Your task to perform on an android device: toggle pop-ups in chrome Image 0: 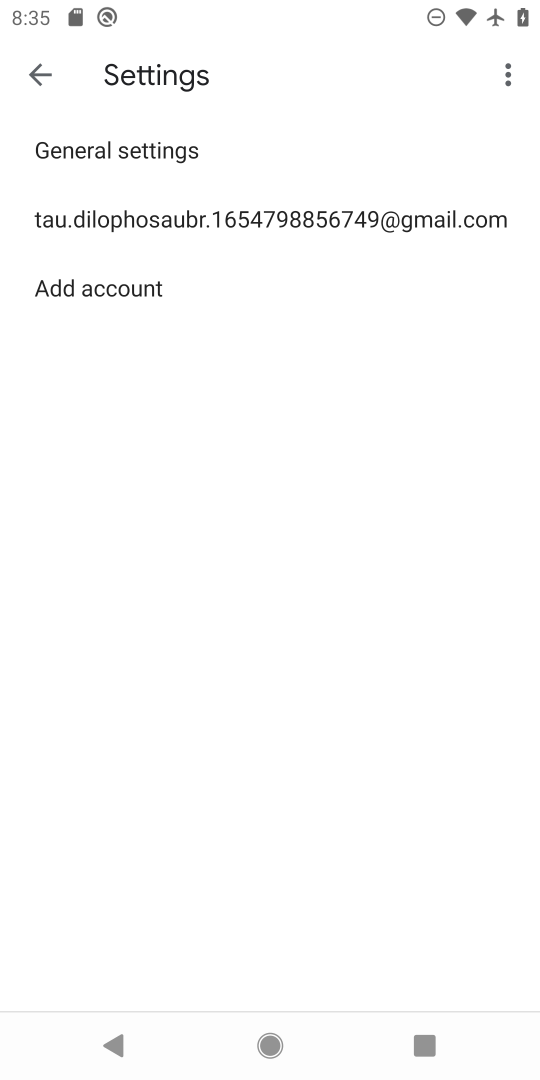
Step 0: press home button
Your task to perform on an android device: toggle pop-ups in chrome Image 1: 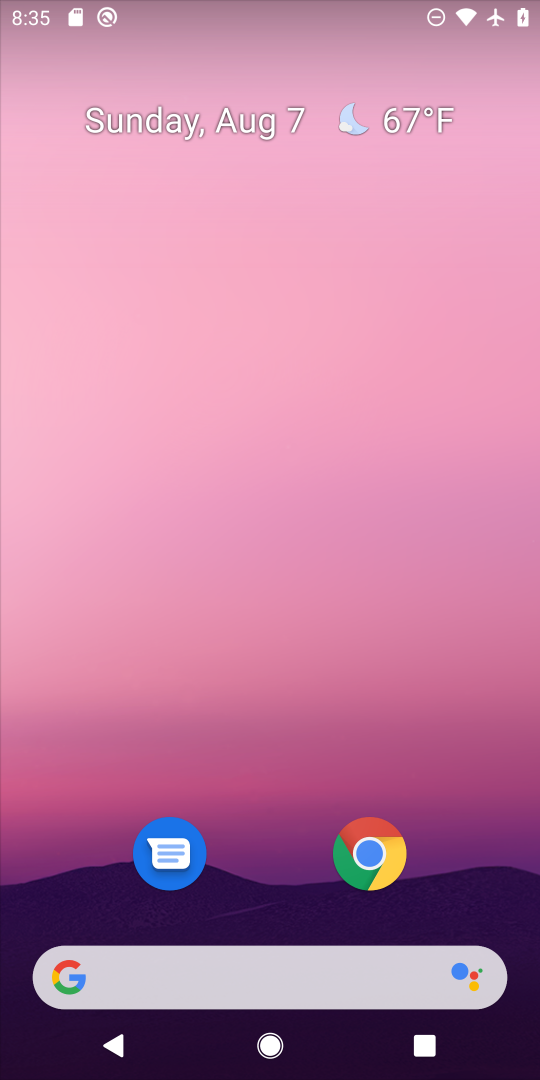
Step 1: drag from (294, 842) to (360, 162)
Your task to perform on an android device: toggle pop-ups in chrome Image 2: 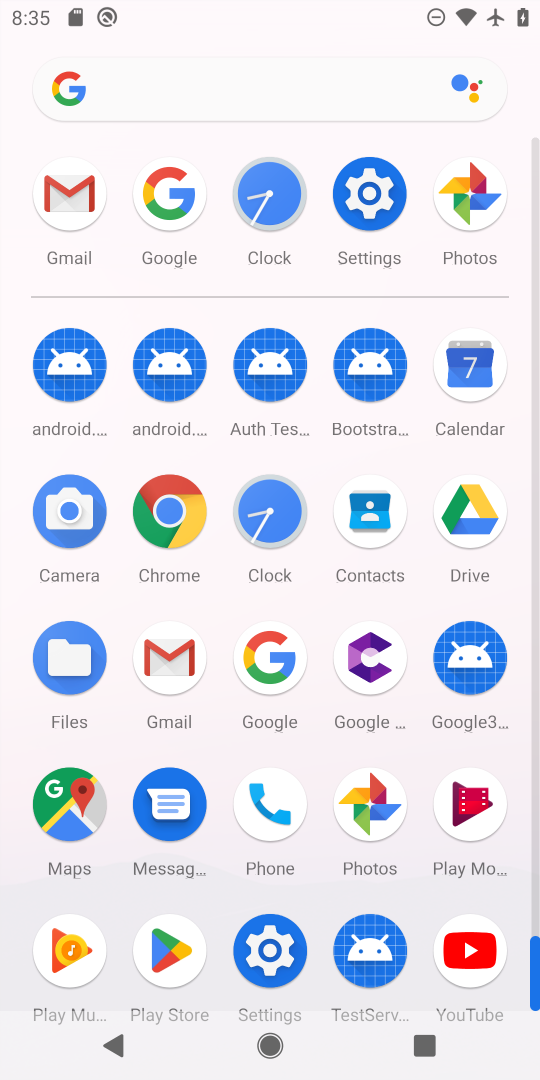
Step 2: click (175, 514)
Your task to perform on an android device: toggle pop-ups in chrome Image 3: 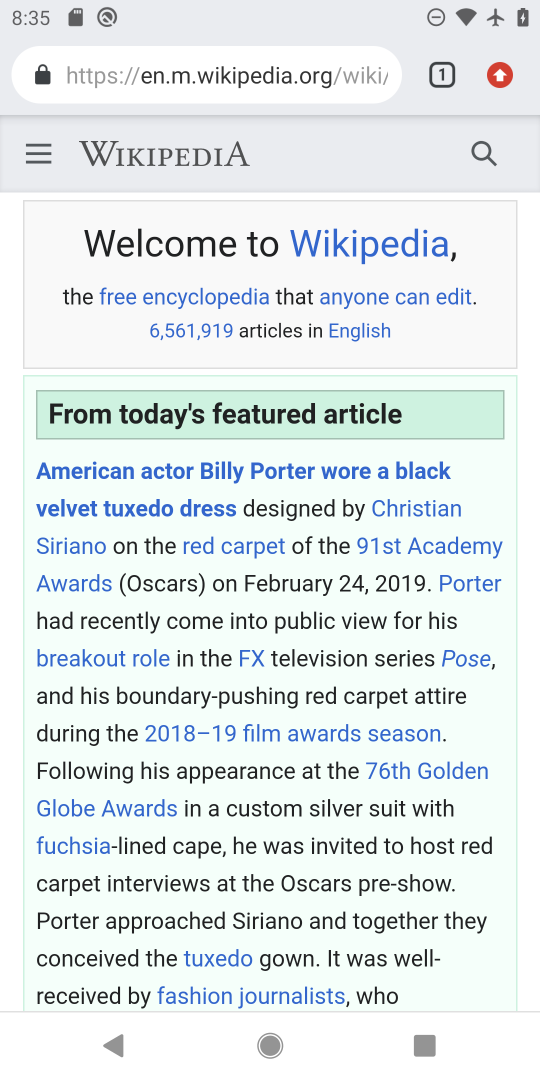
Step 3: click (497, 83)
Your task to perform on an android device: toggle pop-ups in chrome Image 4: 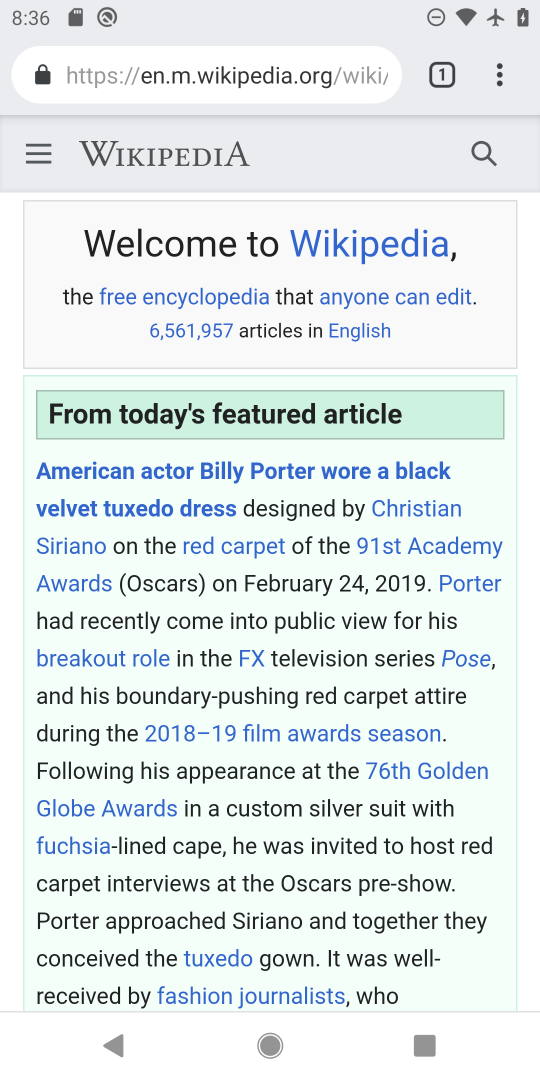
Step 4: click (503, 77)
Your task to perform on an android device: toggle pop-ups in chrome Image 5: 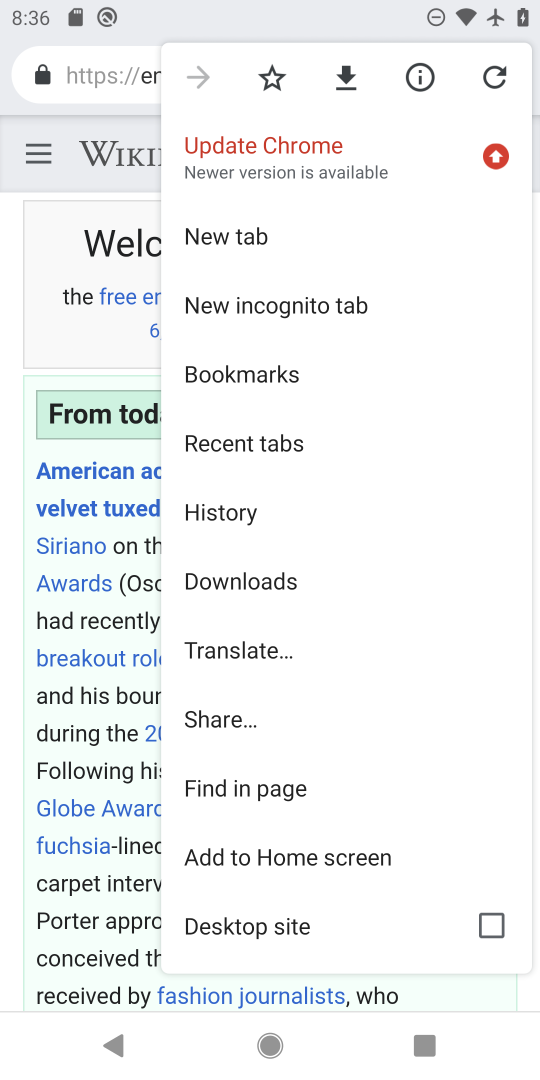
Step 5: drag from (302, 819) to (394, 175)
Your task to perform on an android device: toggle pop-ups in chrome Image 6: 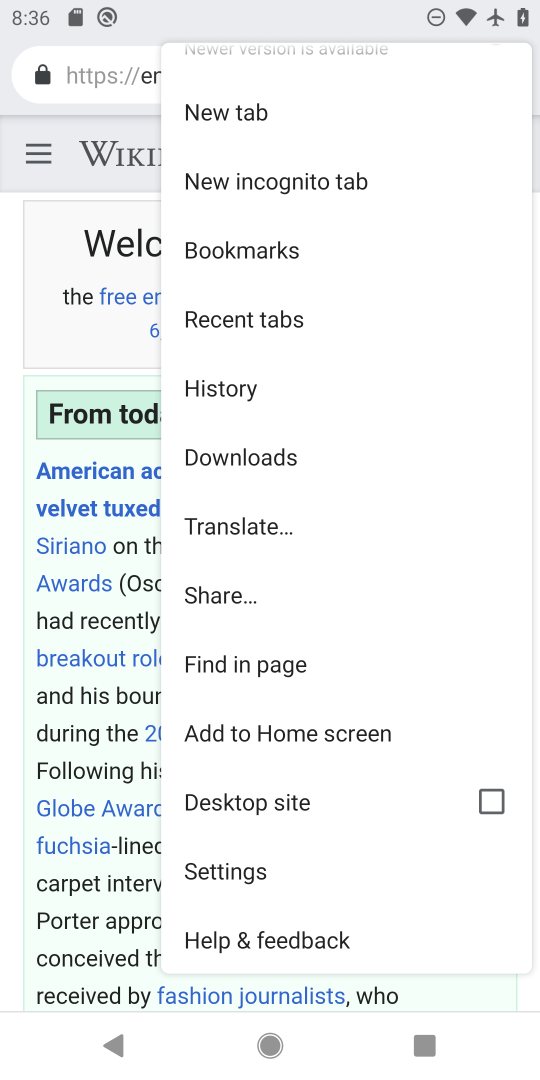
Step 6: click (255, 873)
Your task to perform on an android device: toggle pop-ups in chrome Image 7: 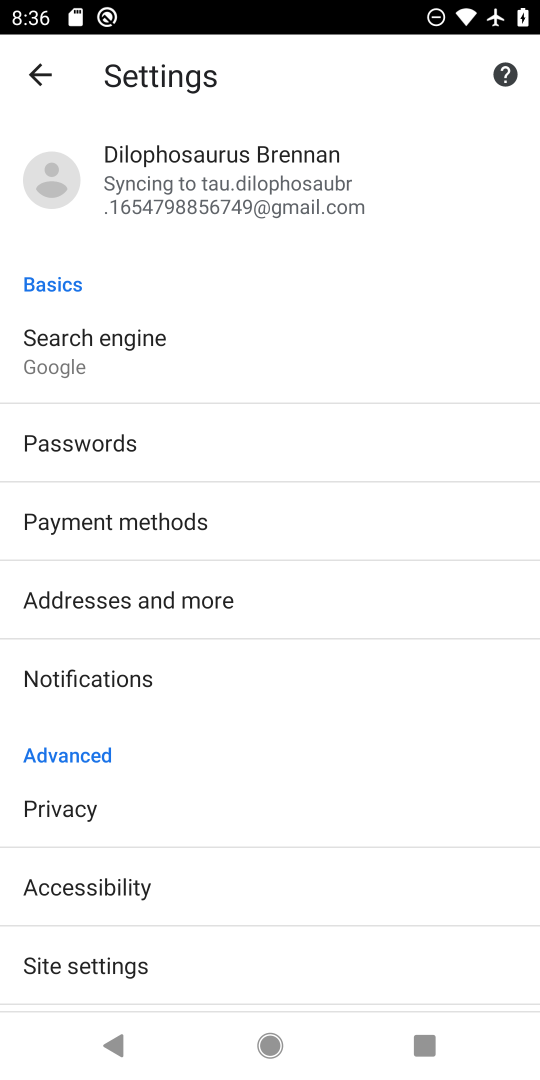
Step 7: click (102, 973)
Your task to perform on an android device: toggle pop-ups in chrome Image 8: 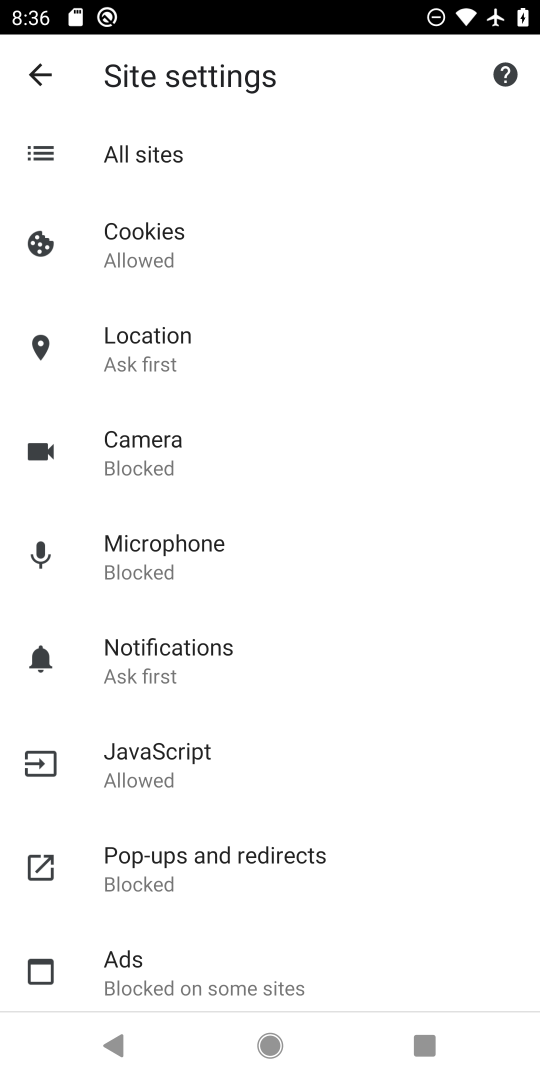
Step 8: click (205, 864)
Your task to perform on an android device: toggle pop-ups in chrome Image 9: 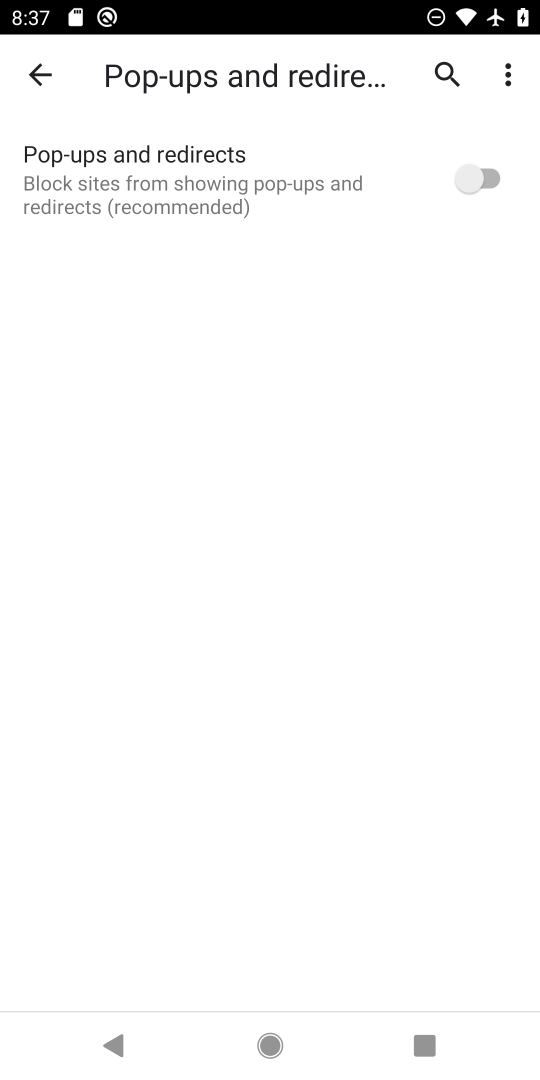
Step 9: click (403, 190)
Your task to perform on an android device: toggle pop-ups in chrome Image 10: 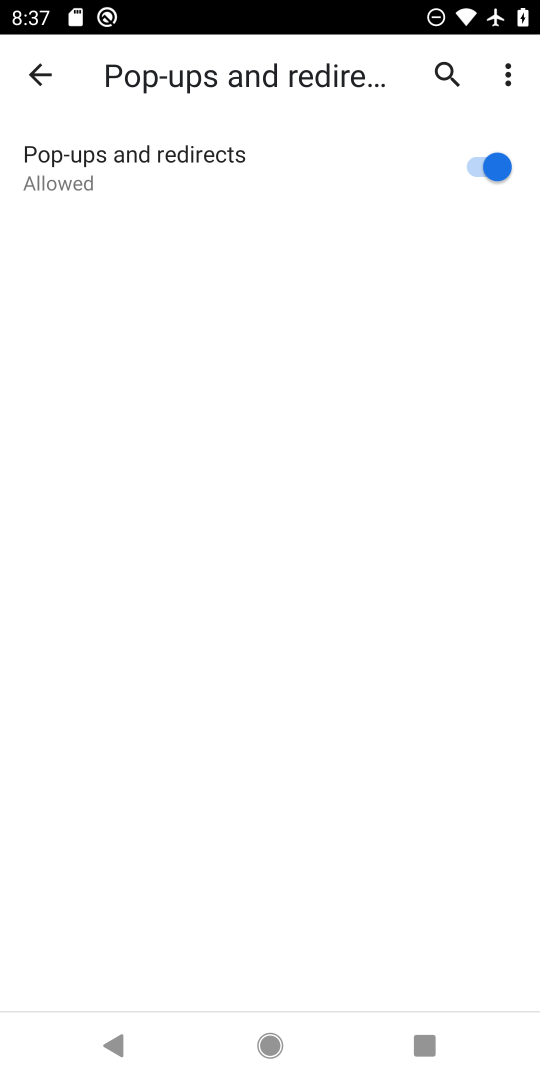
Step 10: task complete